Your task to perform on an android device: Toggle the flashlight Image 0: 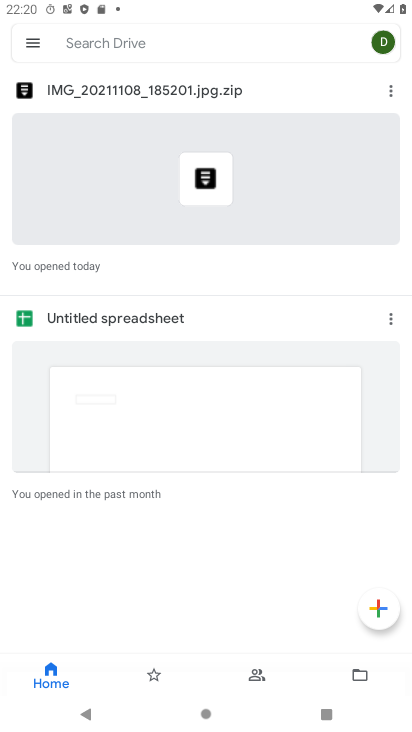
Step 0: press home button
Your task to perform on an android device: Toggle the flashlight Image 1: 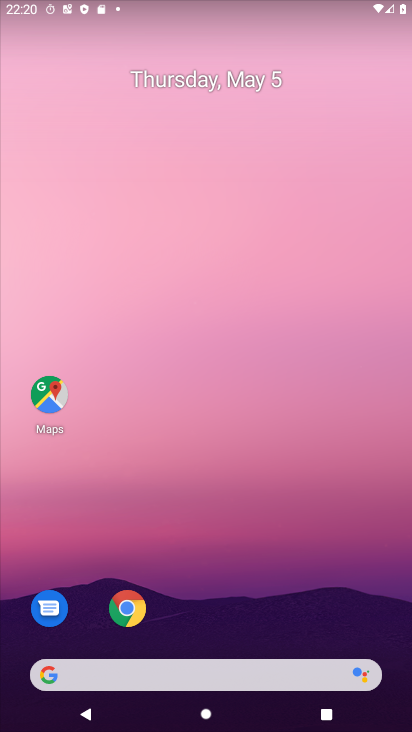
Step 1: drag from (240, 625) to (70, 5)
Your task to perform on an android device: Toggle the flashlight Image 2: 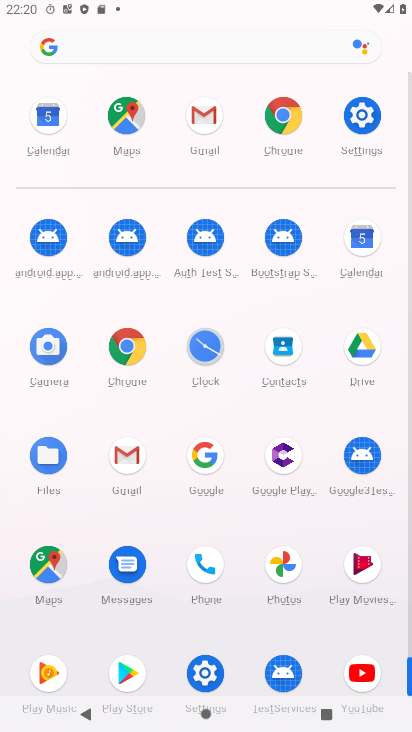
Step 2: click (355, 106)
Your task to perform on an android device: Toggle the flashlight Image 3: 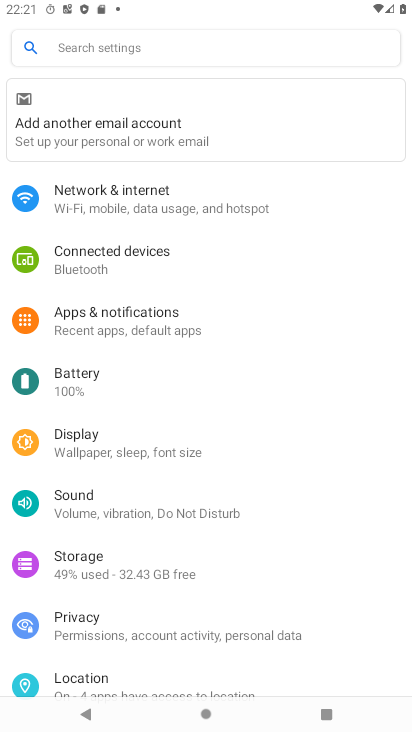
Step 3: task complete